Your task to perform on an android device: Open the map Image 0: 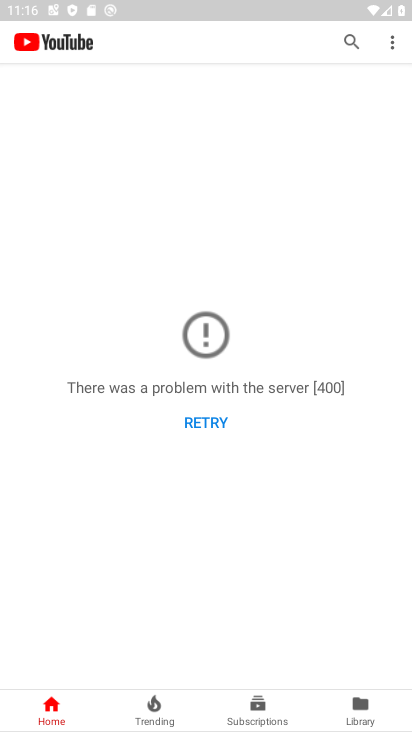
Step 0: press home button
Your task to perform on an android device: Open the map Image 1: 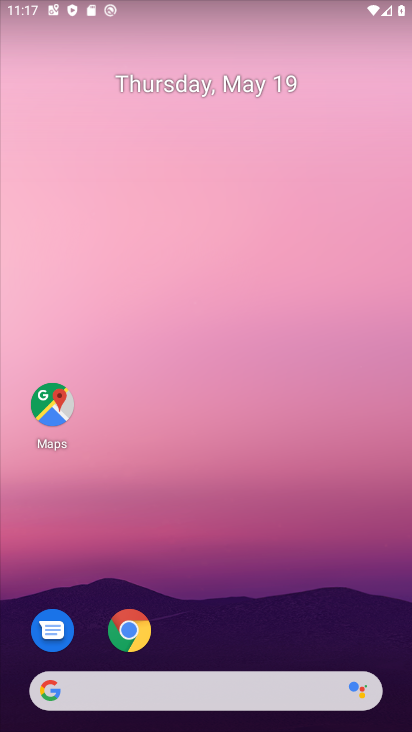
Step 1: click (51, 405)
Your task to perform on an android device: Open the map Image 2: 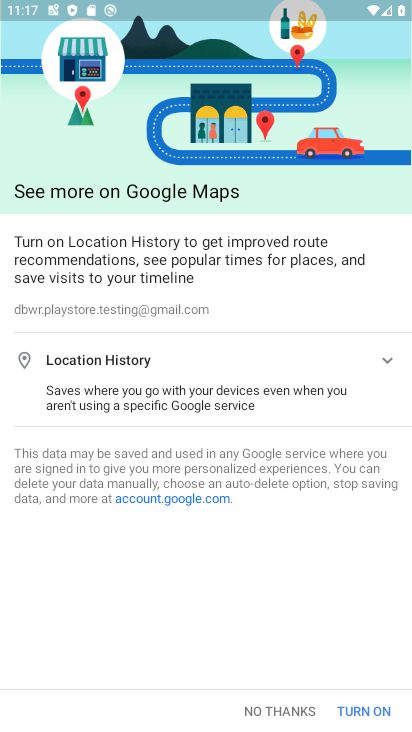
Step 2: click (272, 700)
Your task to perform on an android device: Open the map Image 3: 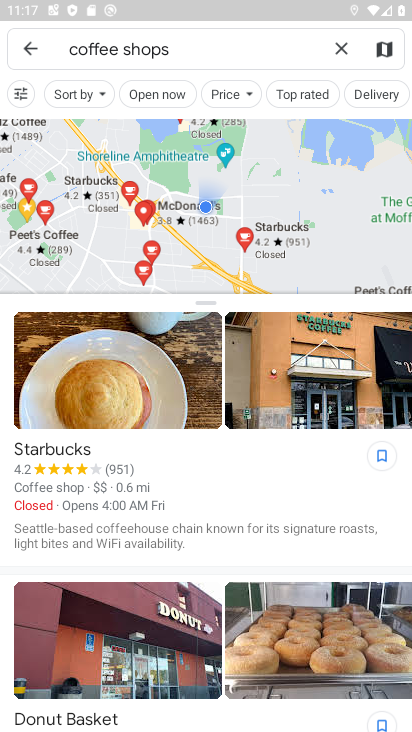
Step 3: click (339, 53)
Your task to perform on an android device: Open the map Image 4: 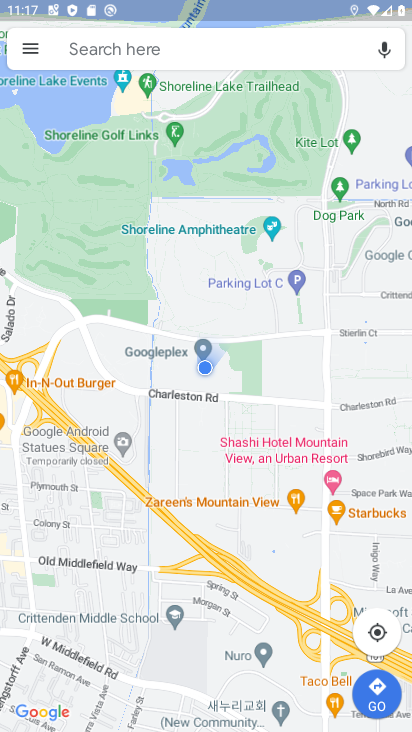
Step 4: task complete